Your task to perform on an android device: Open the Play Movies app and select the watchlist tab. Image 0: 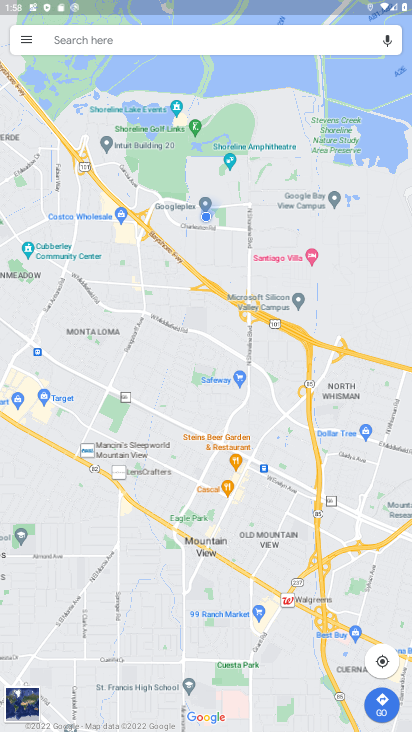
Step 0: press home button
Your task to perform on an android device: Open the Play Movies app and select the watchlist tab. Image 1: 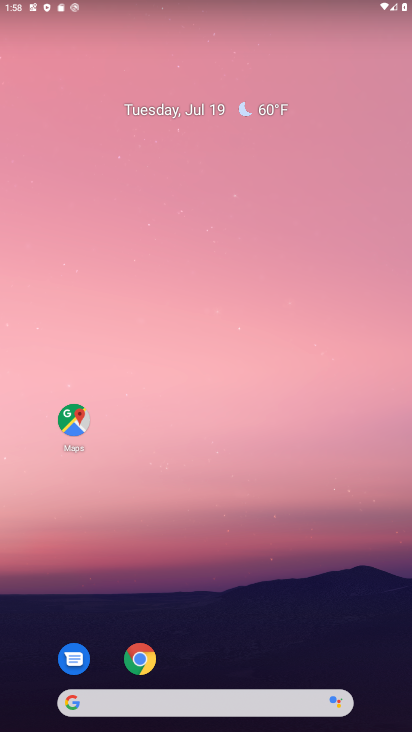
Step 1: drag from (252, 655) to (191, 12)
Your task to perform on an android device: Open the Play Movies app and select the watchlist tab. Image 2: 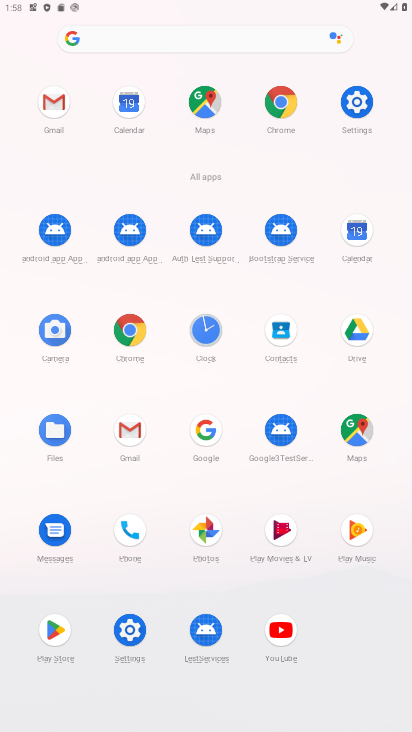
Step 2: click (280, 533)
Your task to perform on an android device: Open the Play Movies app and select the watchlist tab. Image 3: 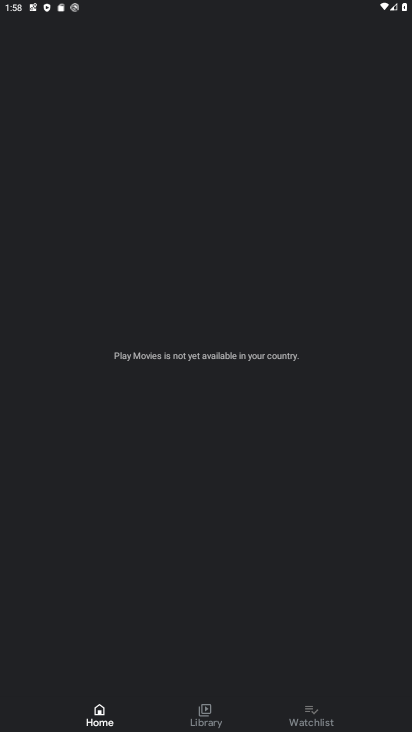
Step 3: click (317, 710)
Your task to perform on an android device: Open the Play Movies app and select the watchlist tab. Image 4: 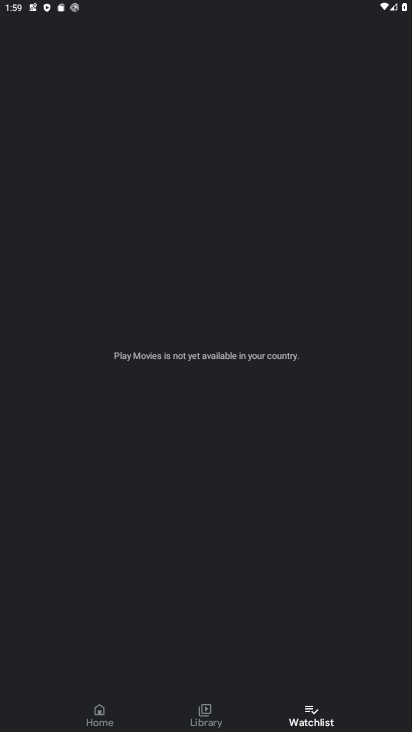
Step 4: task complete